Your task to perform on an android device: Go to privacy settings Image 0: 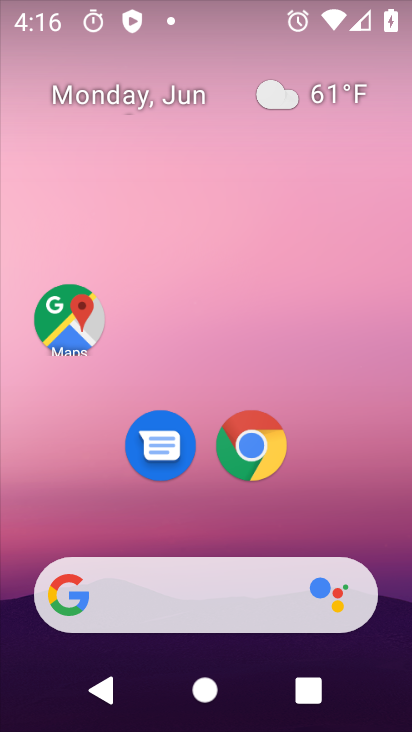
Step 0: drag from (215, 464) to (300, 29)
Your task to perform on an android device: Go to privacy settings Image 1: 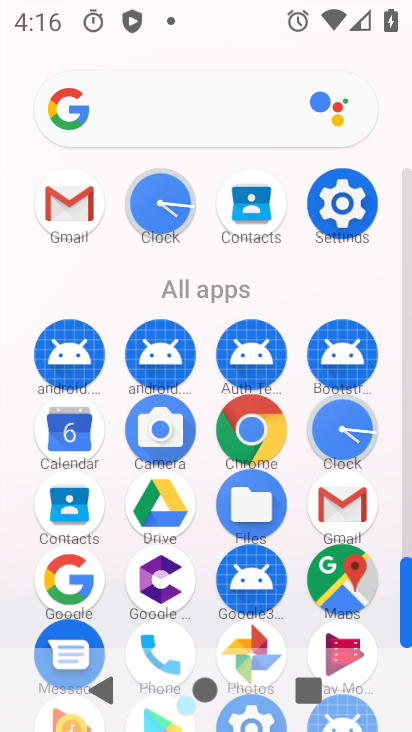
Step 1: click (333, 208)
Your task to perform on an android device: Go to privacy settings Image 2: 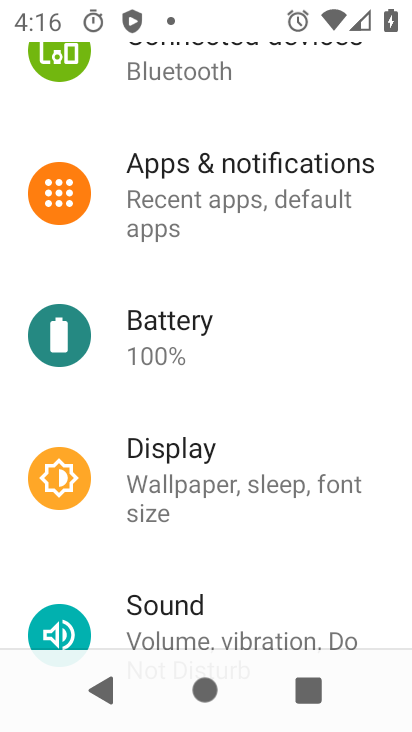
Step 2: drag from (179, 508) to (297, 133)
Your task to perform on an android device: Go to privacy settings Image 3: 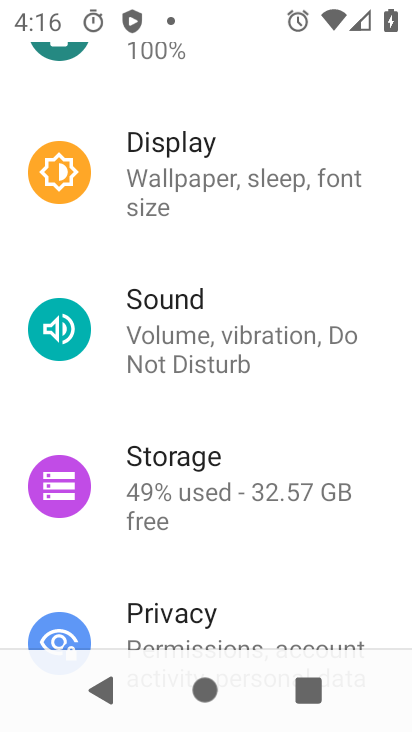
Step 3: click (141, 624)
Your task to perform on an android device: Go to privacy settings Image 4: 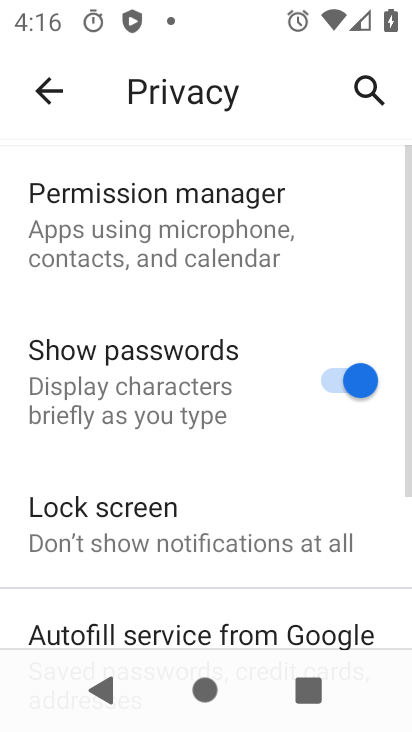
Step 4: task complete